Your task to perform on an android device: open chrome and create a bookmark for the current page Image 0: 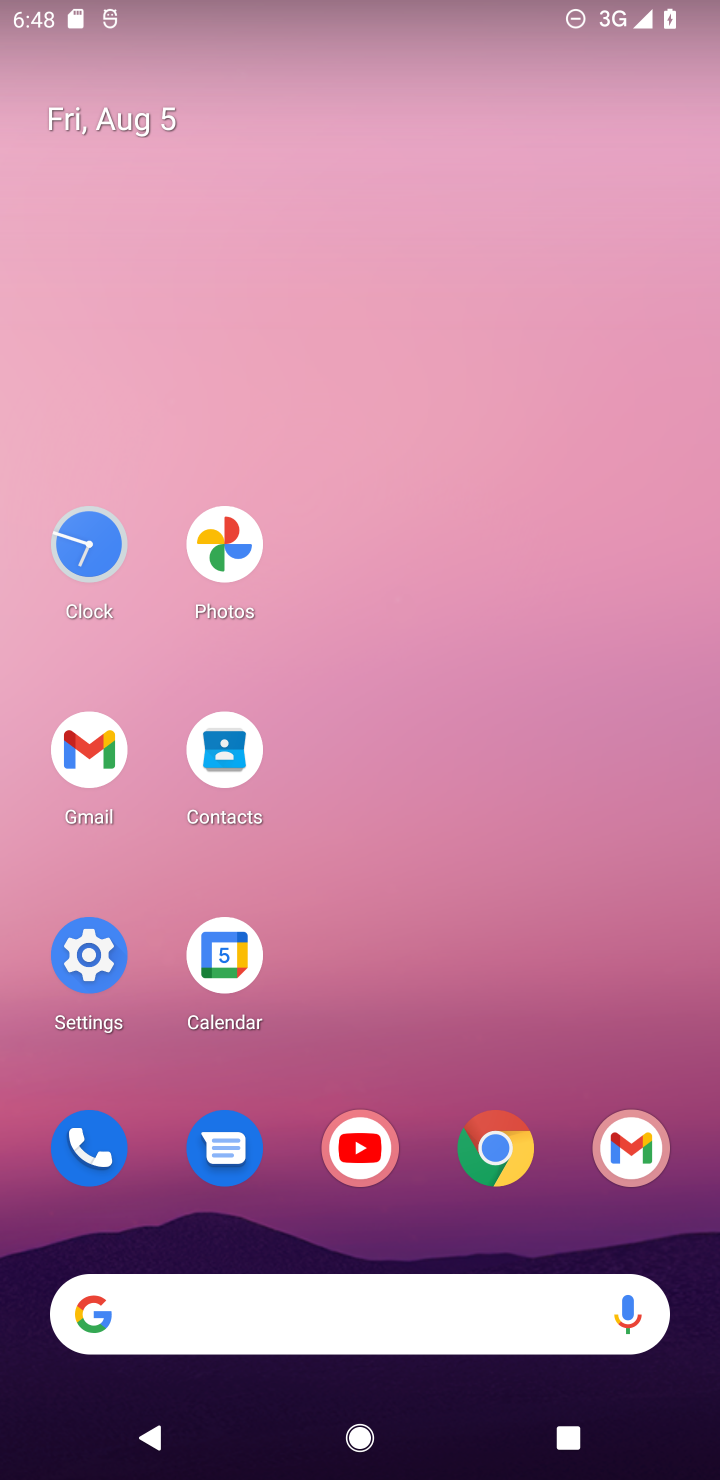
Step 0: click (501, 1154)
Your task to perform on an android device: open chrome and create a bookmark for the current page Image 1: 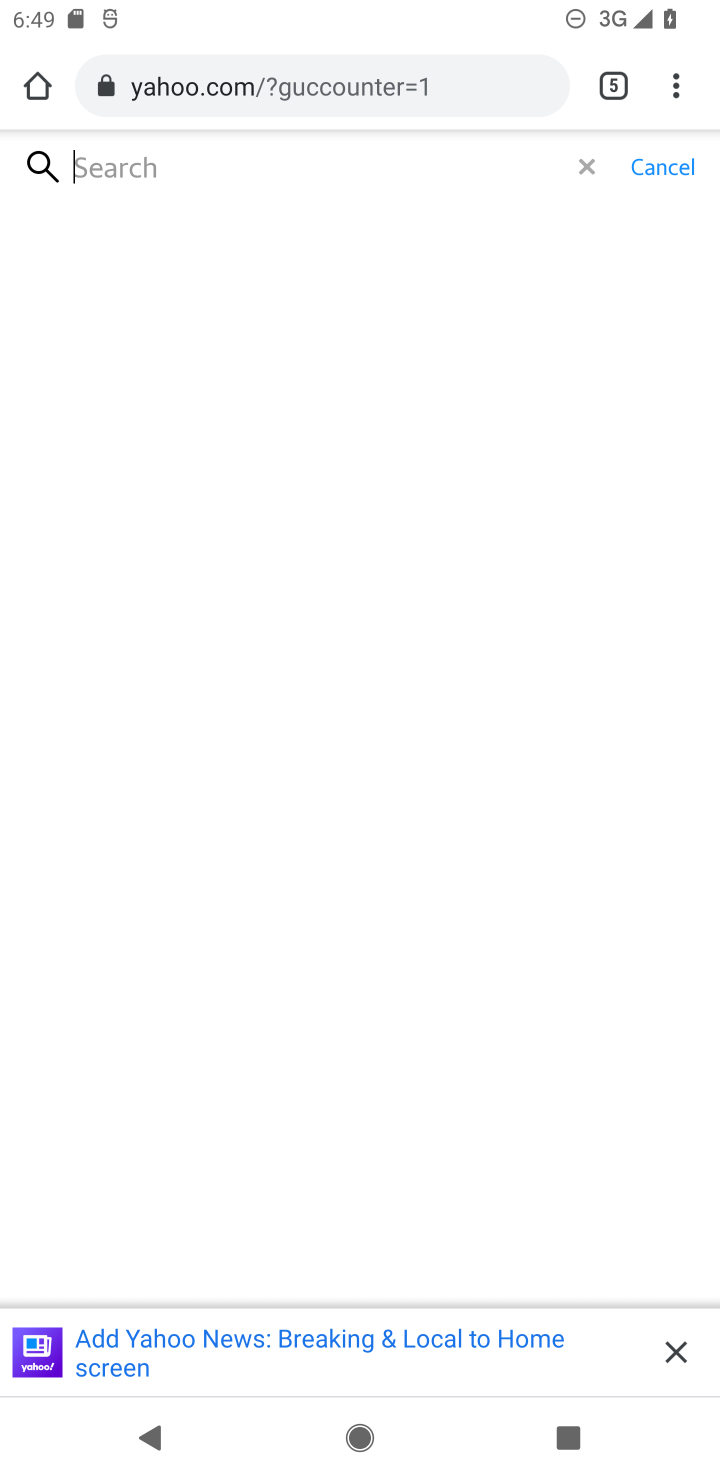
Step 1: click (684, 91)
Your task to perform on an android device: open chrome and create a bookmark for the current page Image 2: 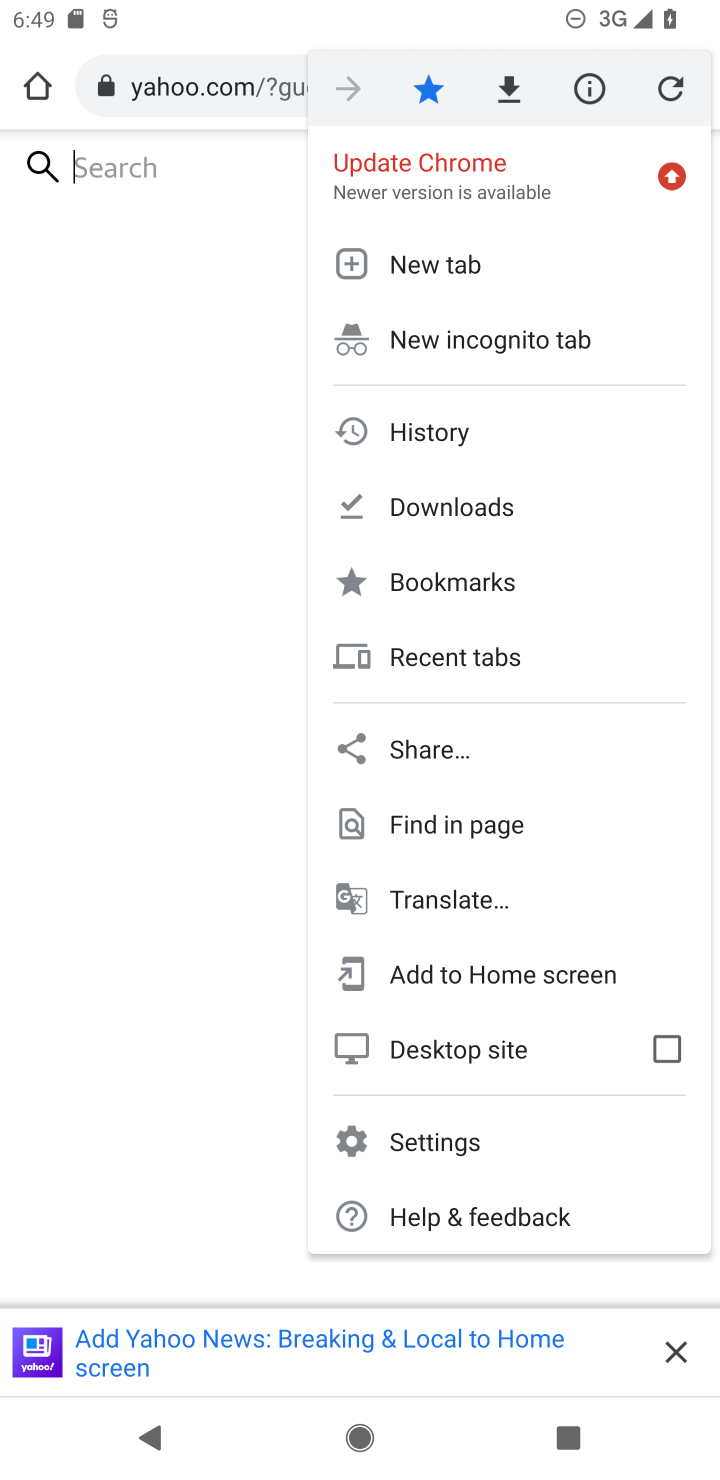
Step 2: task complete